Your task to perform on an android device: empty trash in the gmail app Image 0: 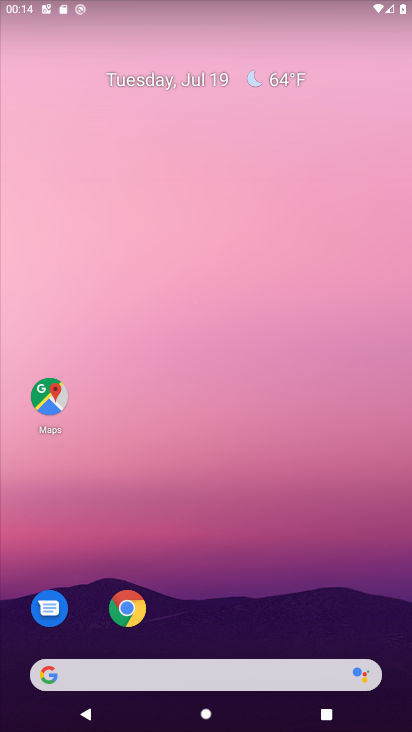
Step 0: click (411, 403)
Your task to perform on an android device: empty trash in the gmail app Image 1: 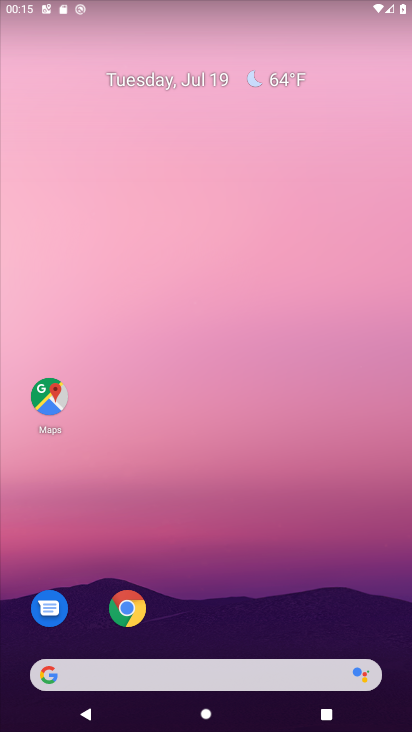
Step 1: drag from (153, 566) to (238, 47)
Your task to perform on an android device: empty trash in the gmail app Image 2: 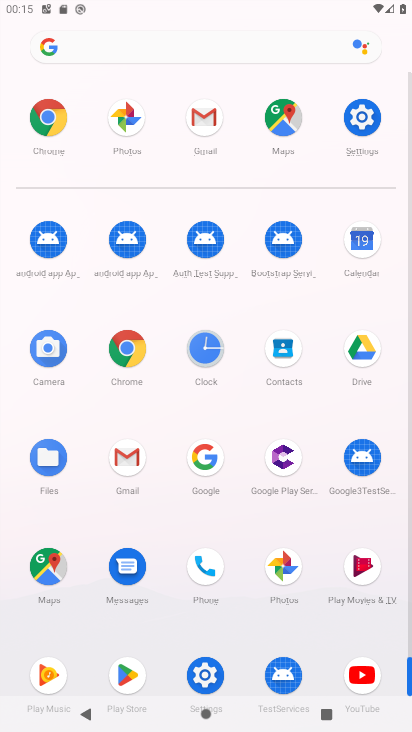
Step 2: click (122, 463)
Your task to perform on an android device: empty trash in the gmail app Image 3: 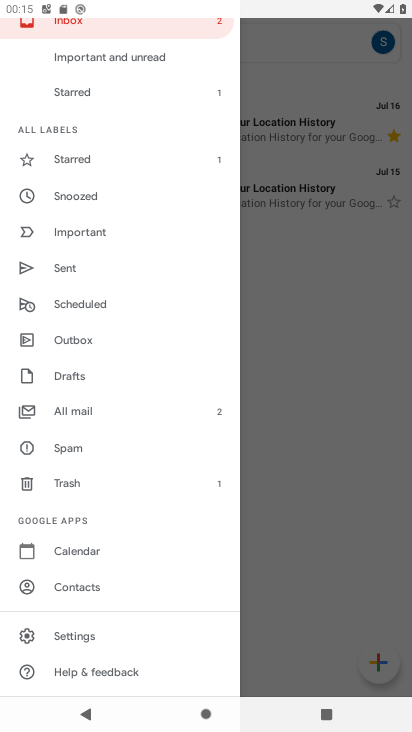
Step 3: click (99, 482)
Your task to perform on an android device: empty trash in the gmail app Image 4: 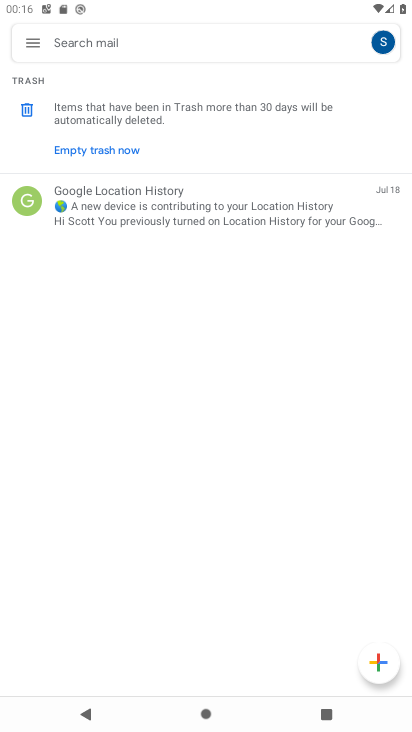
Step 4: click (123, 151)
Your task to perform on an android device: empty trash in the gmail app Image 5: 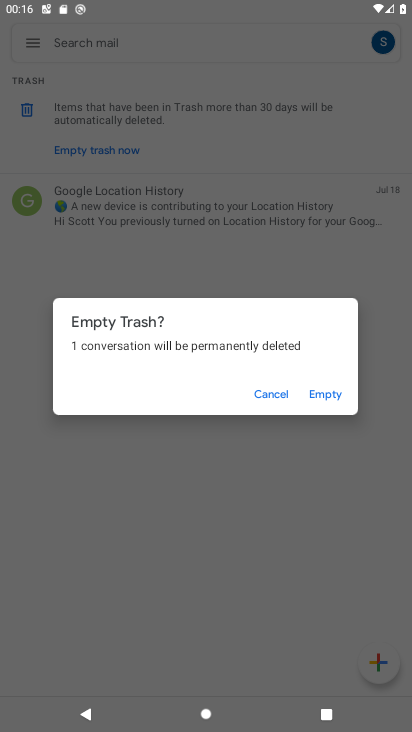
Step 5: click (318, 397)
Your task to perform on an android device: empty trash in the gmail app Image 6: 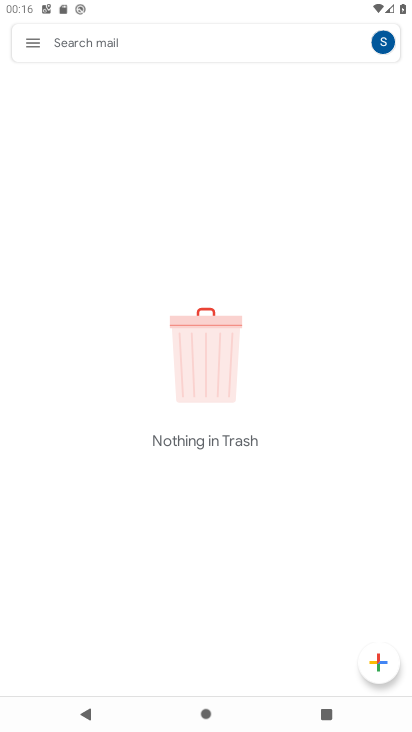
Step 6: task complete